Your task to perform on an android device: What's a good restaurant in Philadelphia? Image 0: 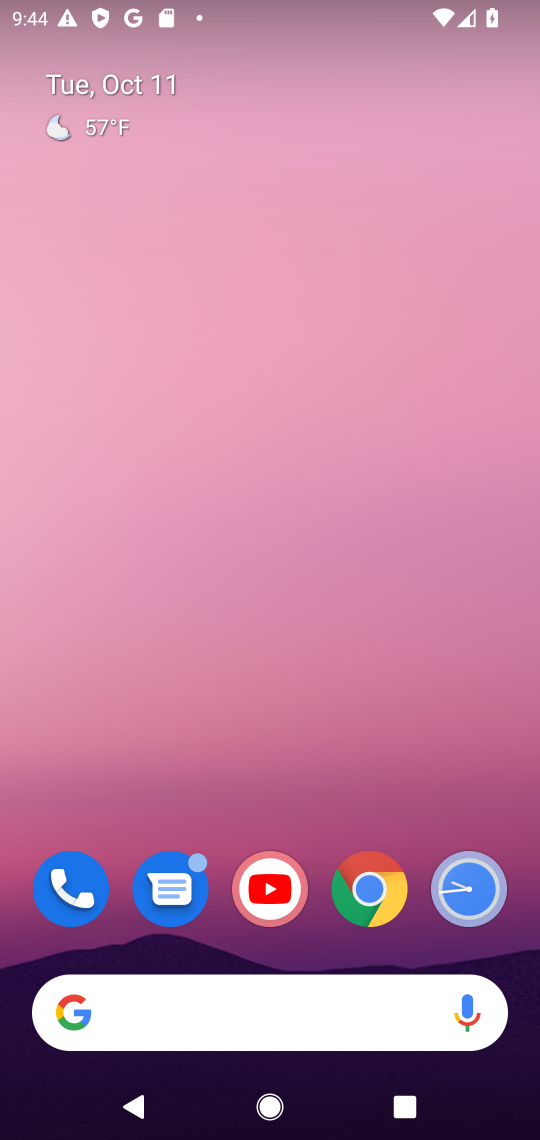
Step 0: click (201, 1031)
Your task to perform on an android device: What's a good restaurant in Philadelphia? Image 1: 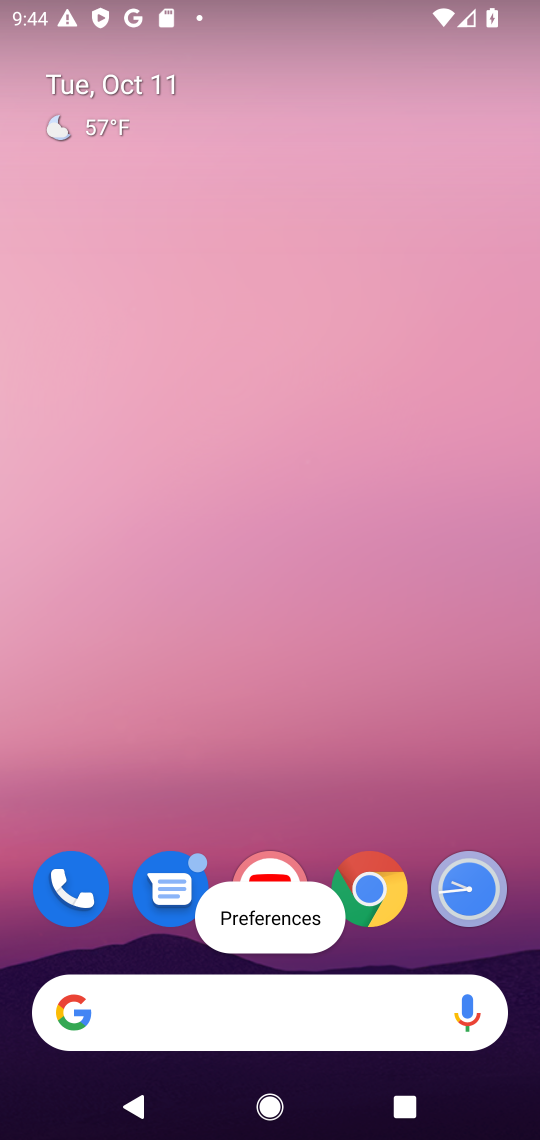
Step 1: click (142, 1028)
Your task to perform on an android device: What's a good restaurant in Philadelphia? Image 2: 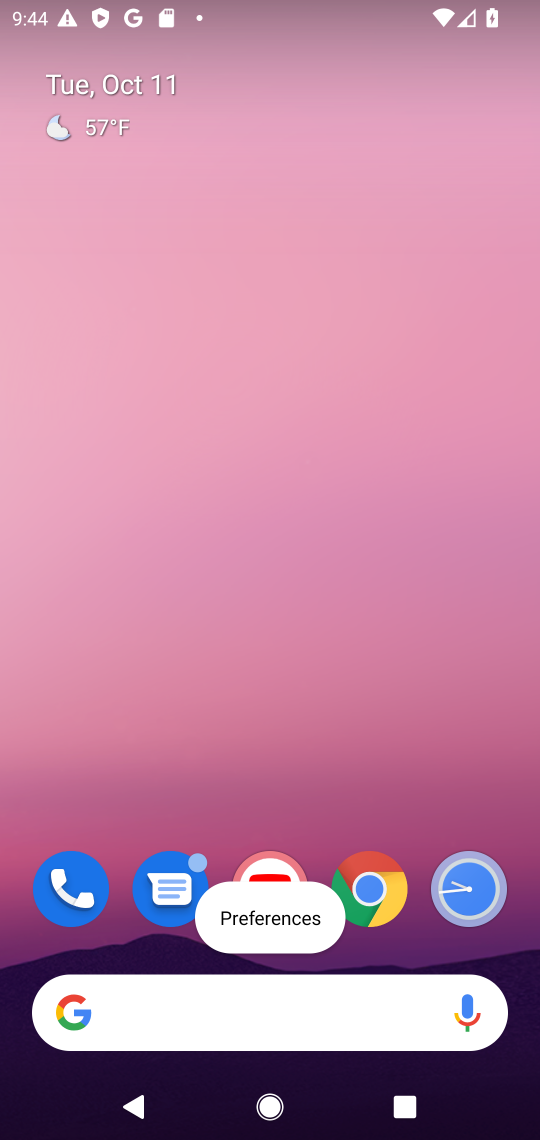
Step 2: click (249, 1009)
Your task to perform on an android device: What's a good restaurant in Philadelphia? Image 3: 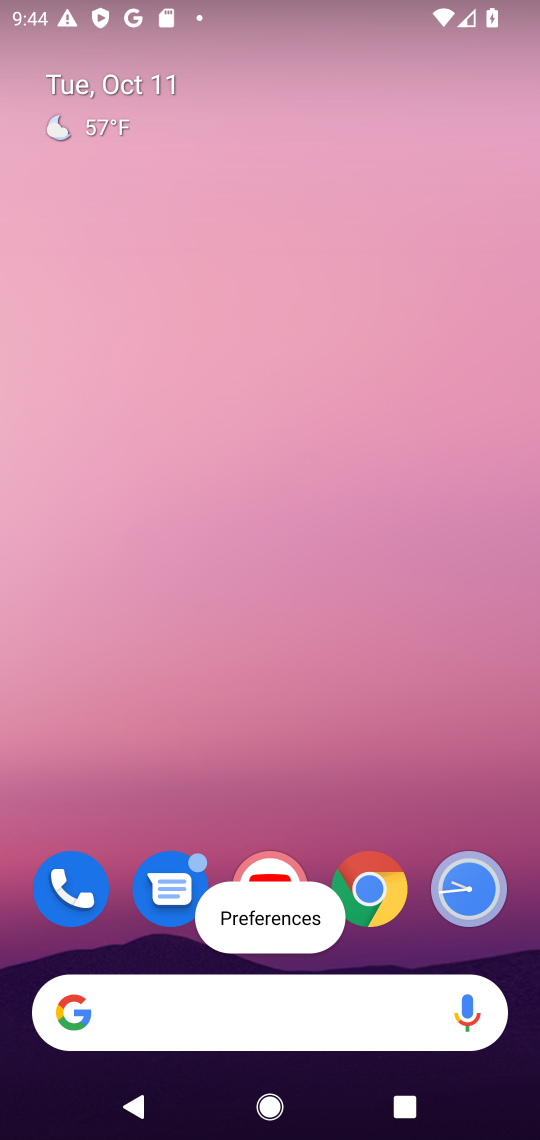
Step 3: click (187, 1015)
Your task to perform on an android device: What's a good restaurant in Philadelphia? Image 4: 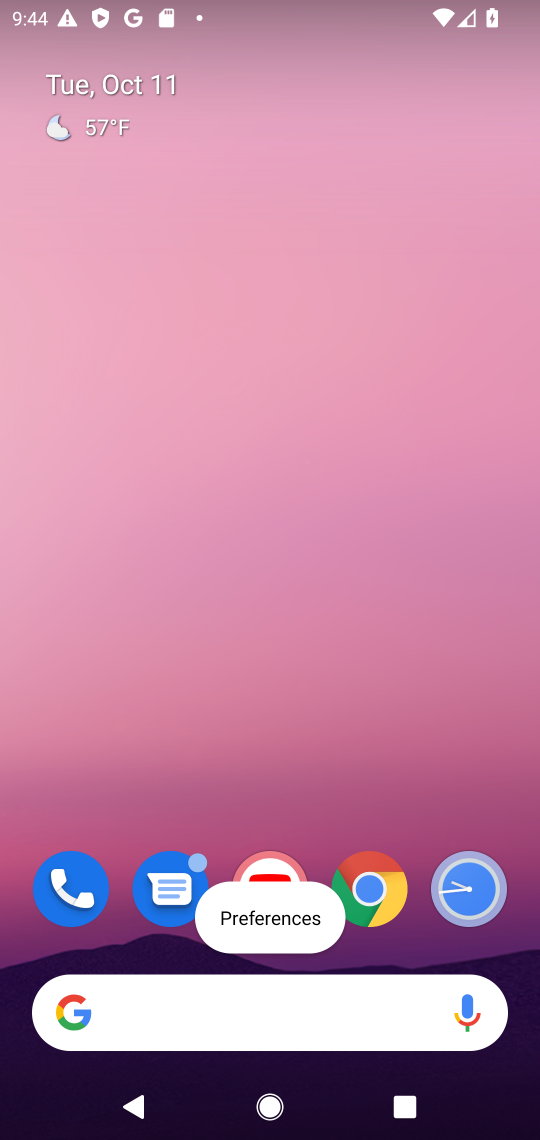
Step 4: click (115, 1020)
Your task to perform on an android device: What's a good restaurant in Philadelphia? Image 5: 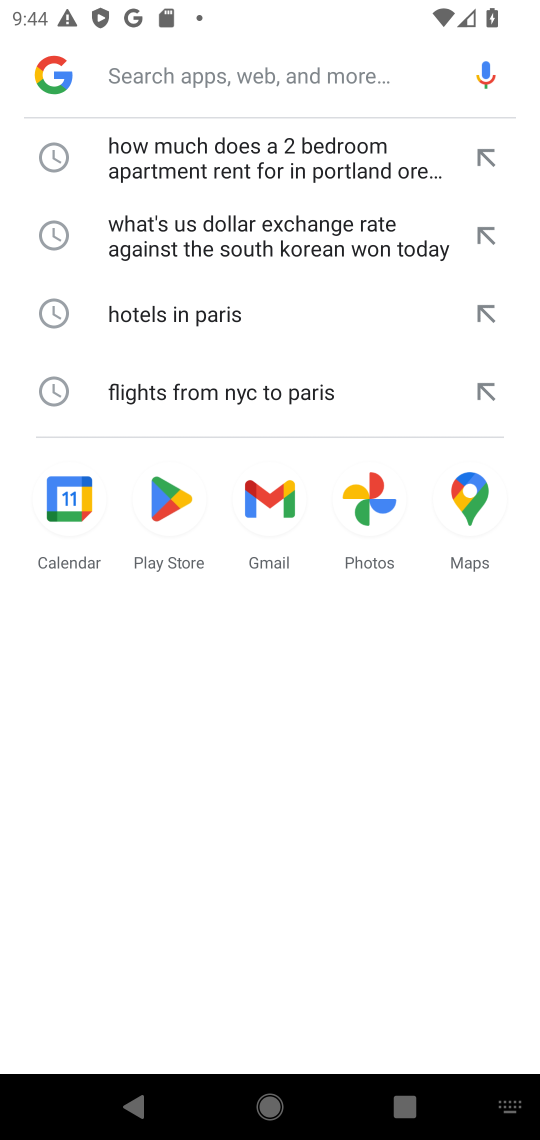
Step 5: click (181, 74)
Your task to perform on an android device: What's a good restaurant in Philadelphia? Image 6: 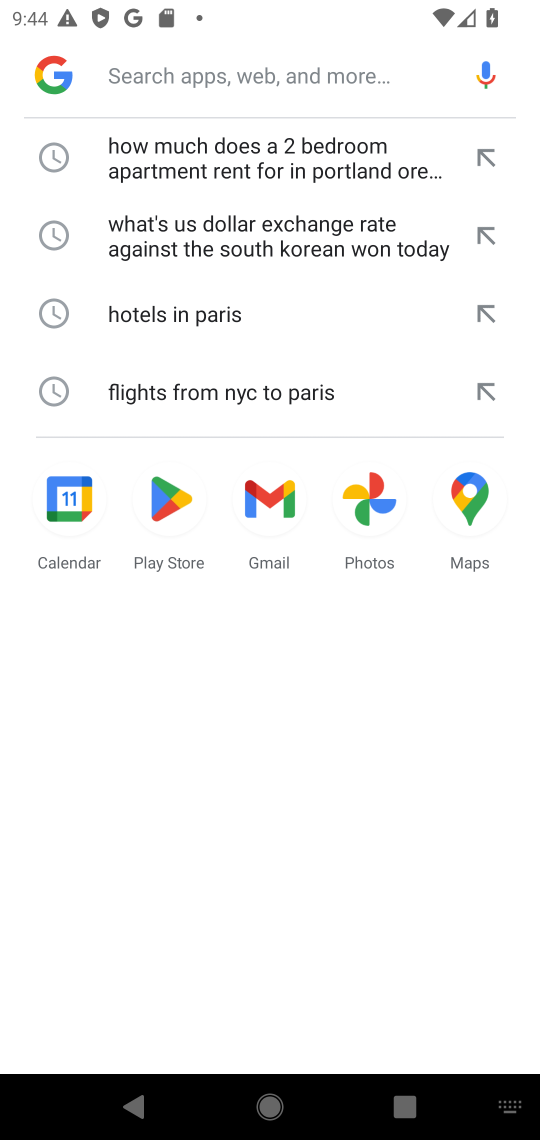
Step 6: type "What's a good restaurant in Philadelphia?"
Your task to perform on an android device: What's a good restaurant in Philadelphia? Image 7: 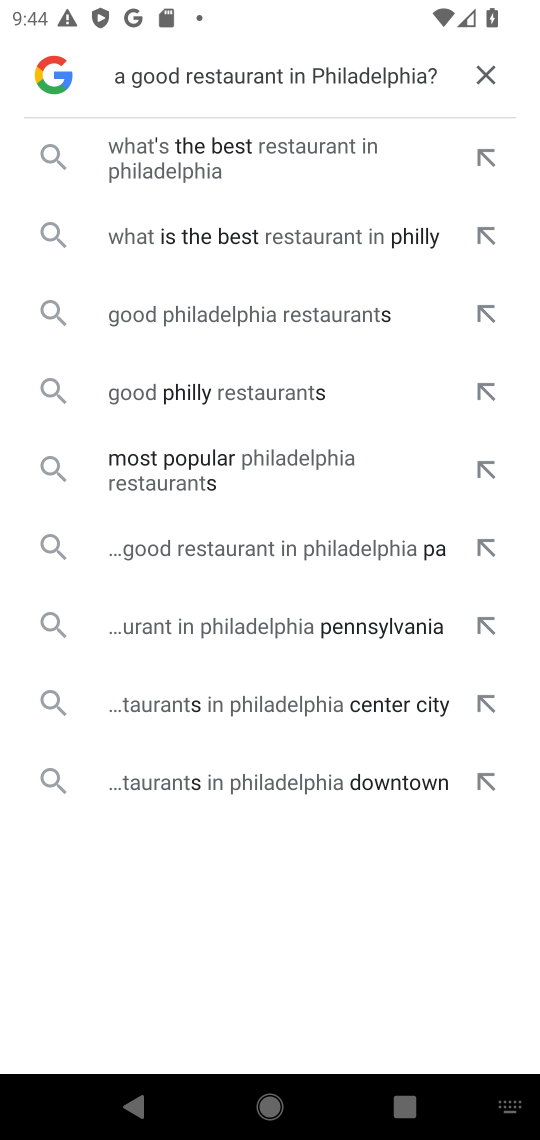
Step 7: click (217, 167)
Your task to perform on an android device: What's a good restaurant in Philadelphia? Image 8: 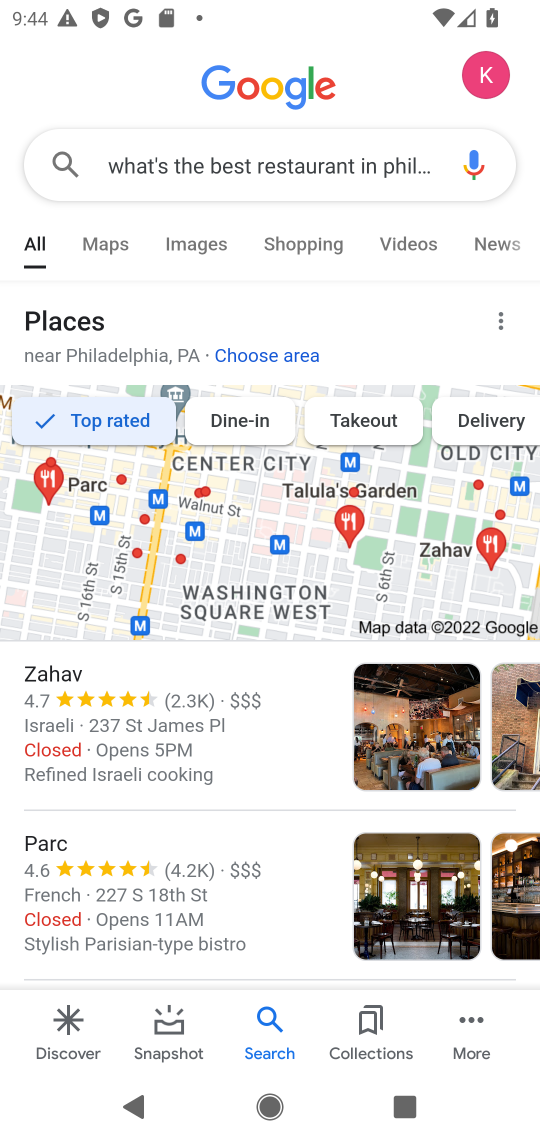
Step 8: task complete